Your task to perform on an android device: Open battery settings Image 0: 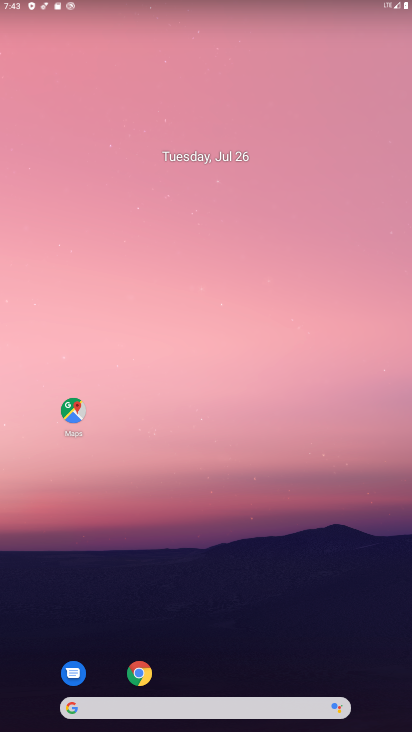
Step 0: drag from (325, 636) to (259, 3)
Your task to perform on an android device: Open battery settings Image 1: 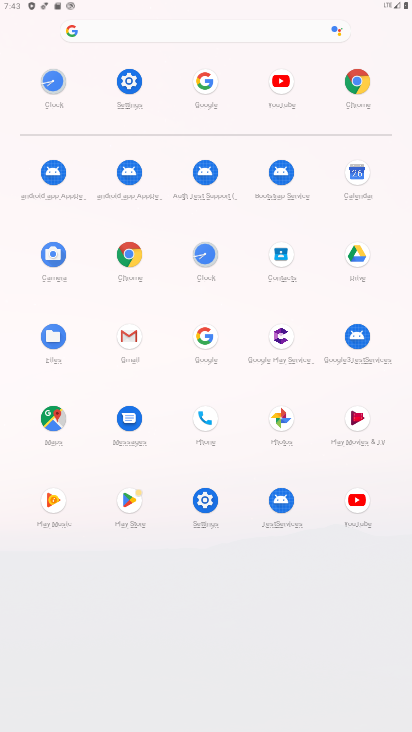
Step 1: click (198, 514)
Your task to perform on an android device: Open battery settings Image 2: 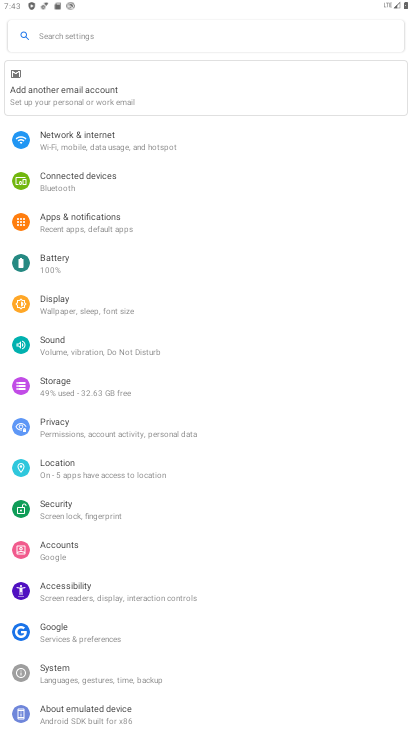
Step 2: click (52, 245)
Your task to perform on an android device: Open battery settings Image 3: 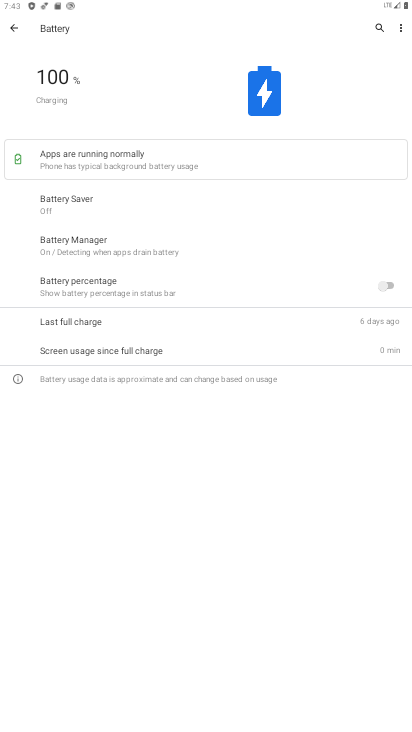
Step 3: task complete